Your task to perform on an android device: empty trash in google photos Image 0: 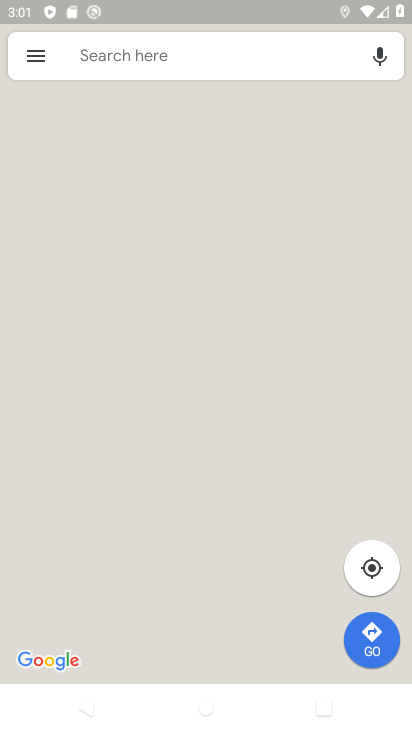
Step 0: press back button
Your task to perform on an android device: empty trash in google photos Image 1: 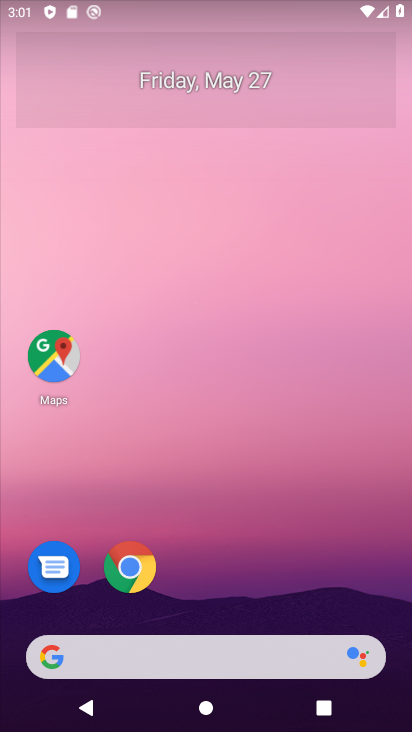
Step 1: drag from (238, 608) to (274, 71)
Your task to perform on an android device: empty trash in google photos Image 2: 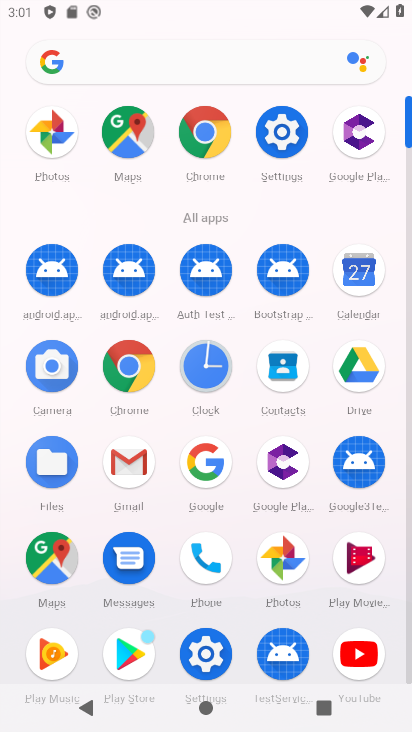
Step 2: click (283, 561)
Your task to perform on an android device: empty trash in google photos Image 3: 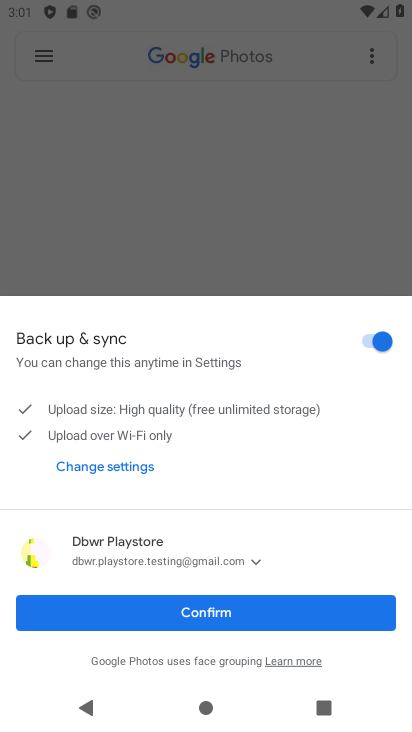
Step 3: click (181, 600)
Your task to perform on an android device: empty trash in google photos Image 4: 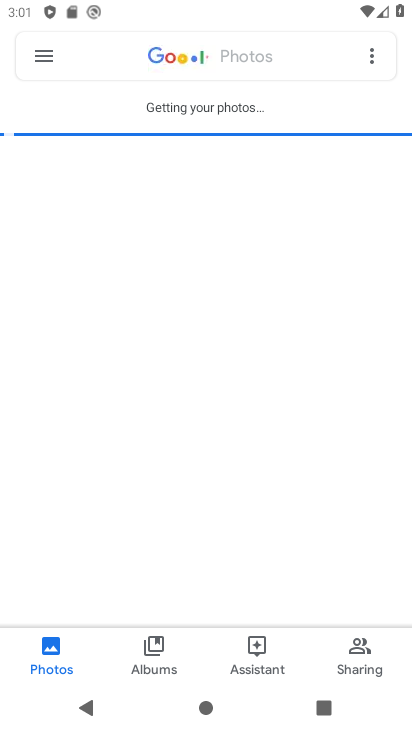
Step 4: click (32, 55)
Your task to perform on an android device: empty trash in google photos Image 5: 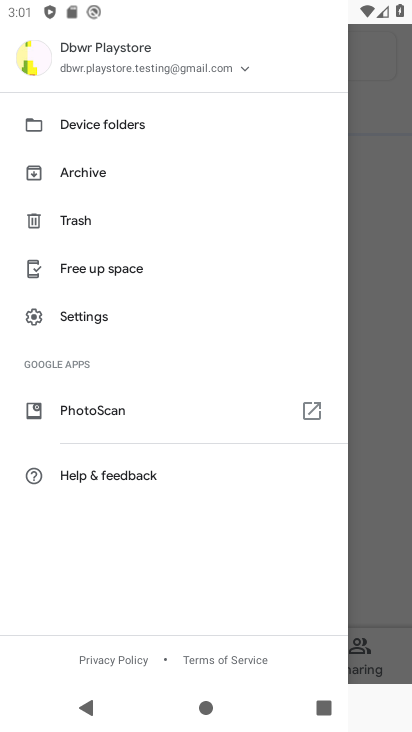
Step 5: click (99, 218)
Your task to perform on an android device: empty trash in google photos Image 6: 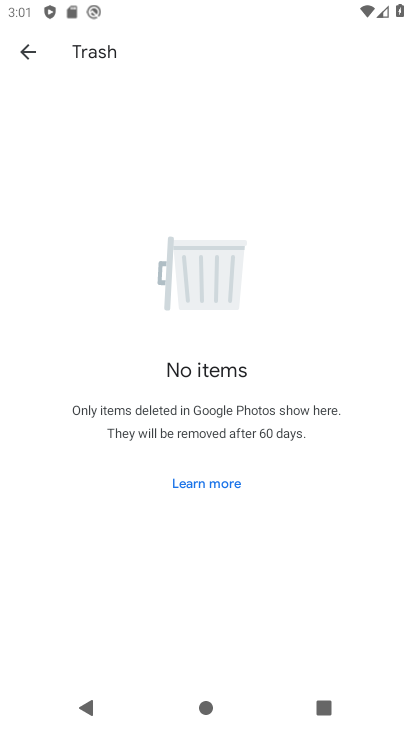
Step 6: task complete